Your task to perform on an android device: check android version Image 0: 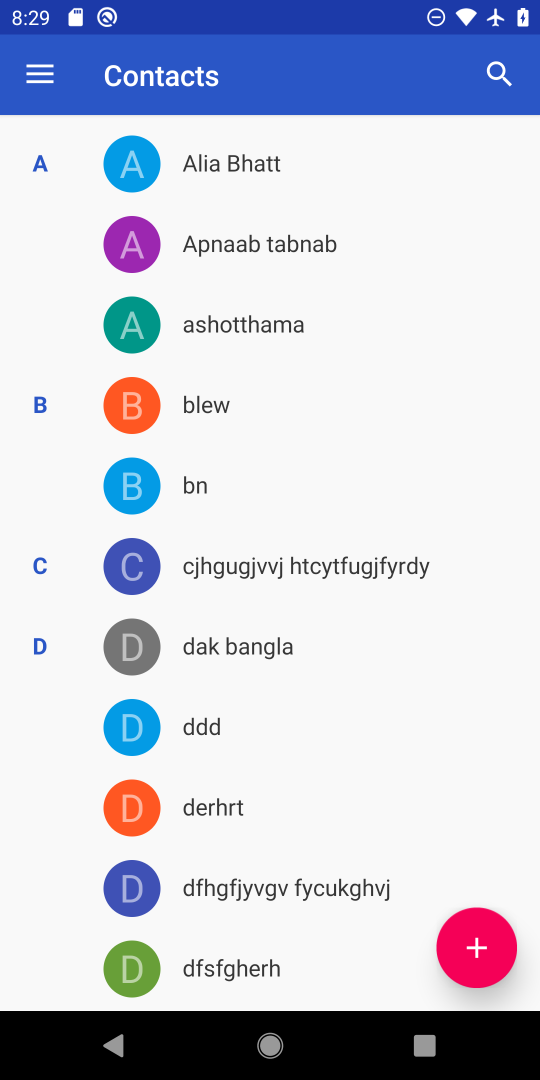
Step 0: press home button
Your task to perform on an android device: check android version Image 1: 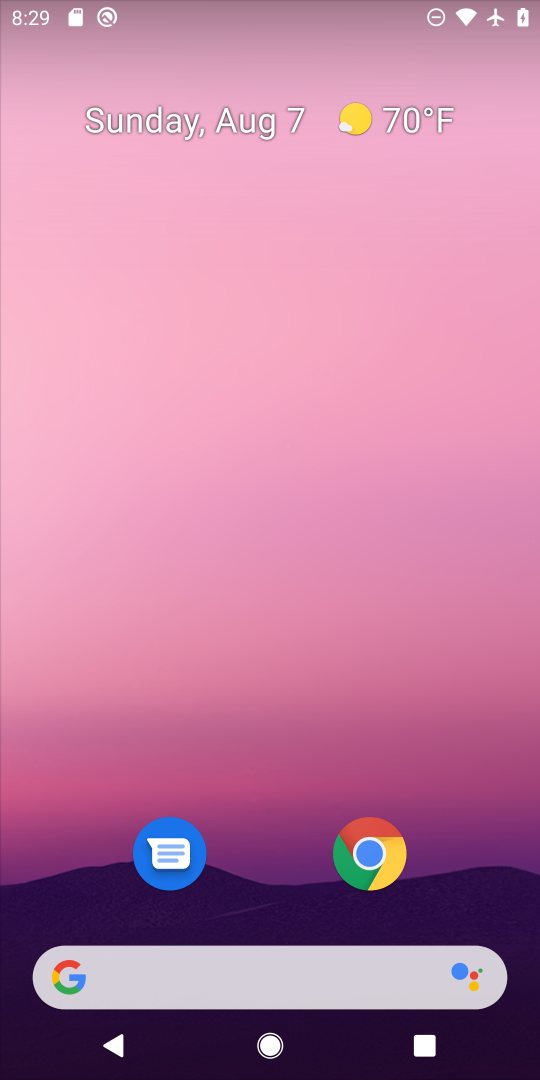
Step 1: drag from (313, 983) to (380, 146)
Your task to perform on an android device: check android version Image 2: 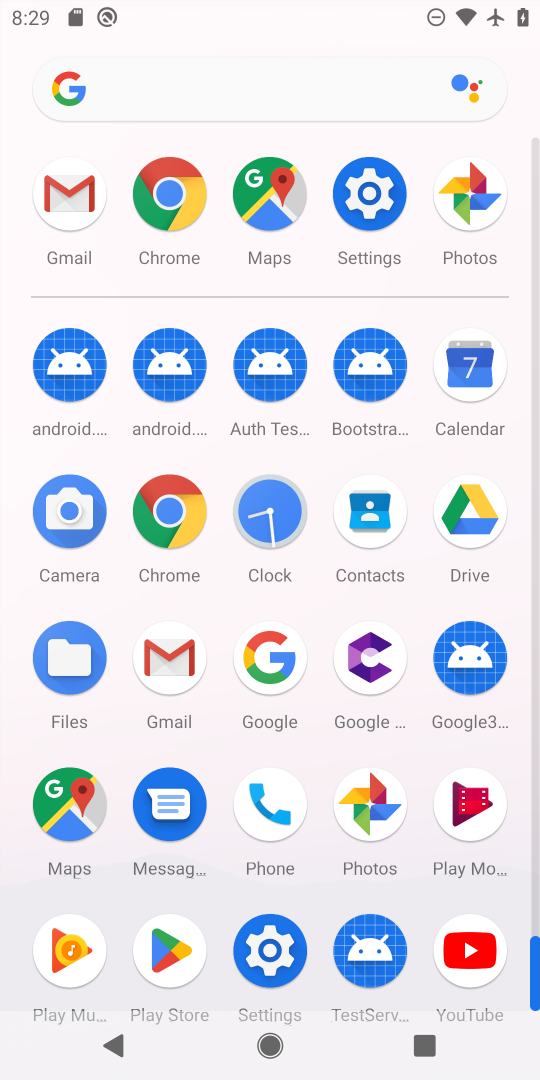
Step 2: click (386, 243)
Your task to perform on an android device: check android version Image 3: 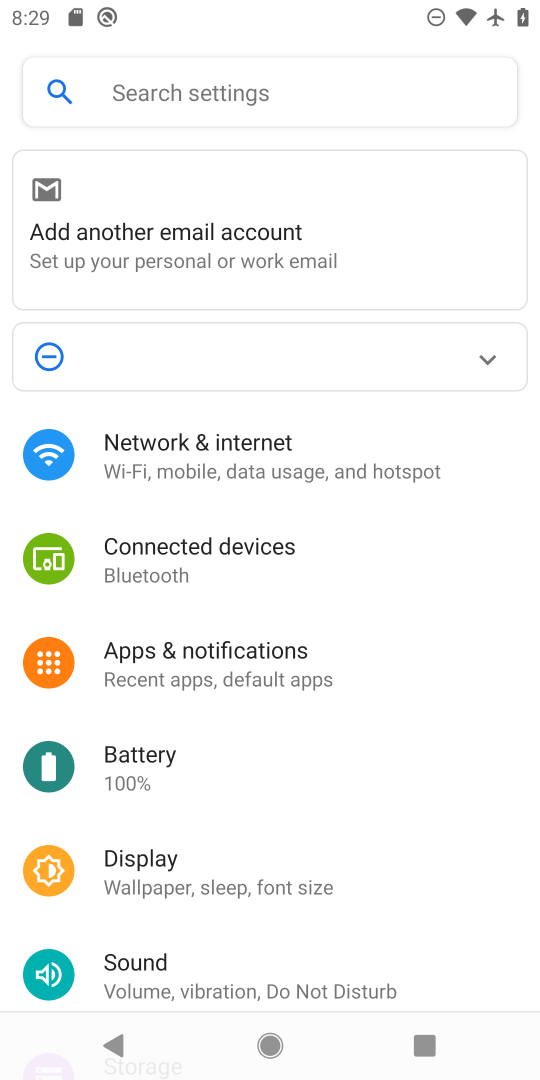
Step 3: drag from (240, 841) to (281, 150)
Your task to perform on an android device: check android version Image 4: 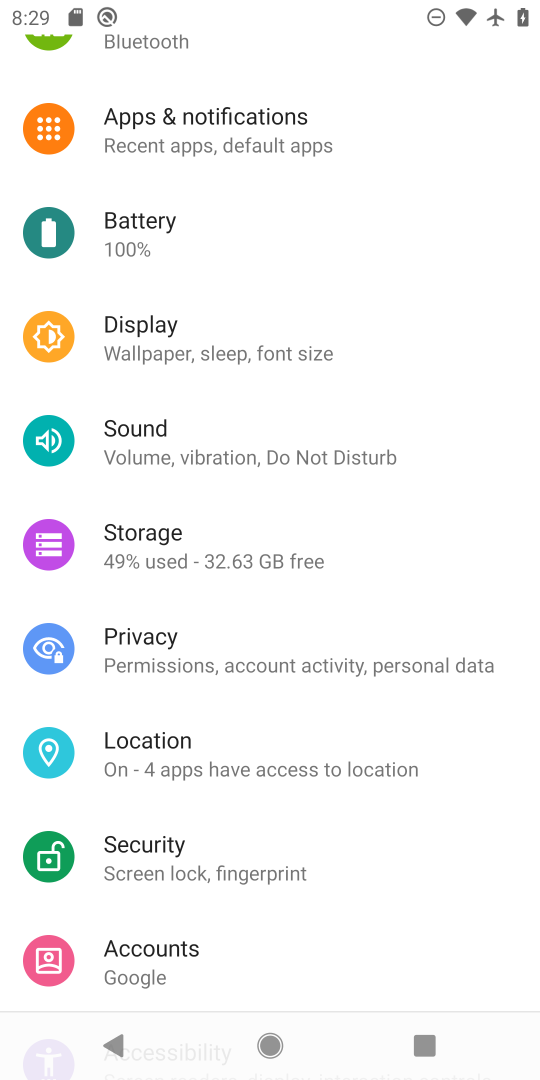
Step 4: drag from (274, 835) to (312, 87)
Your task to perform on an android device: check android version Image 5: 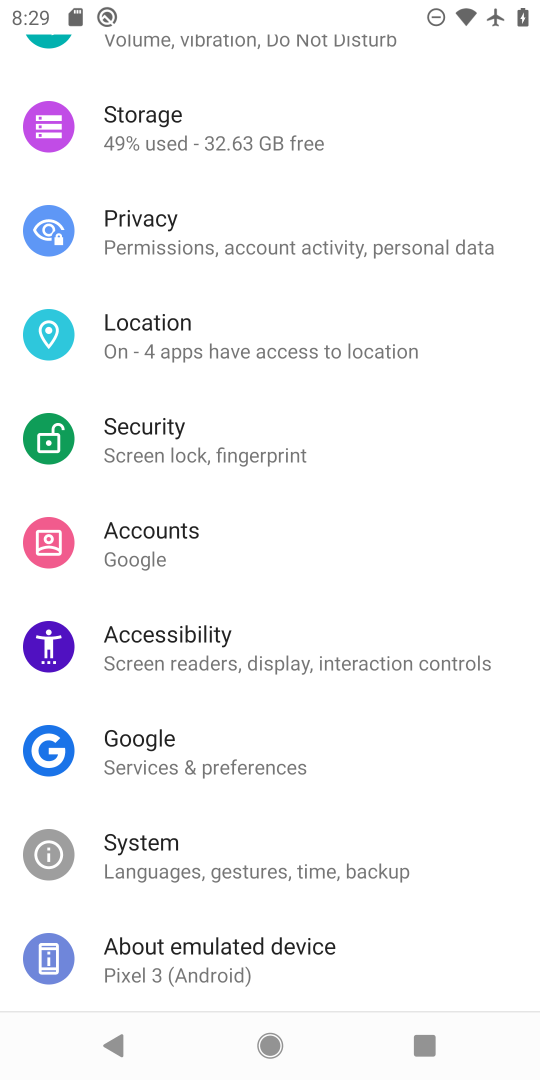
Step 5: click (272, 981)
Your task to perform on an android device: check android version Image 6: 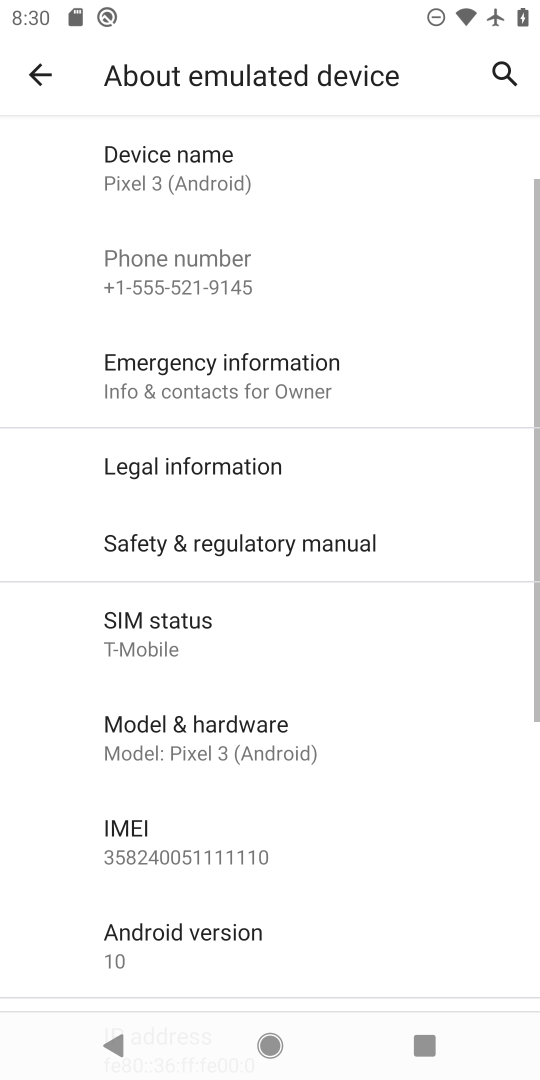
Step 6: click (210, 953)
Your task to perform on an android device: check android version Image 7: 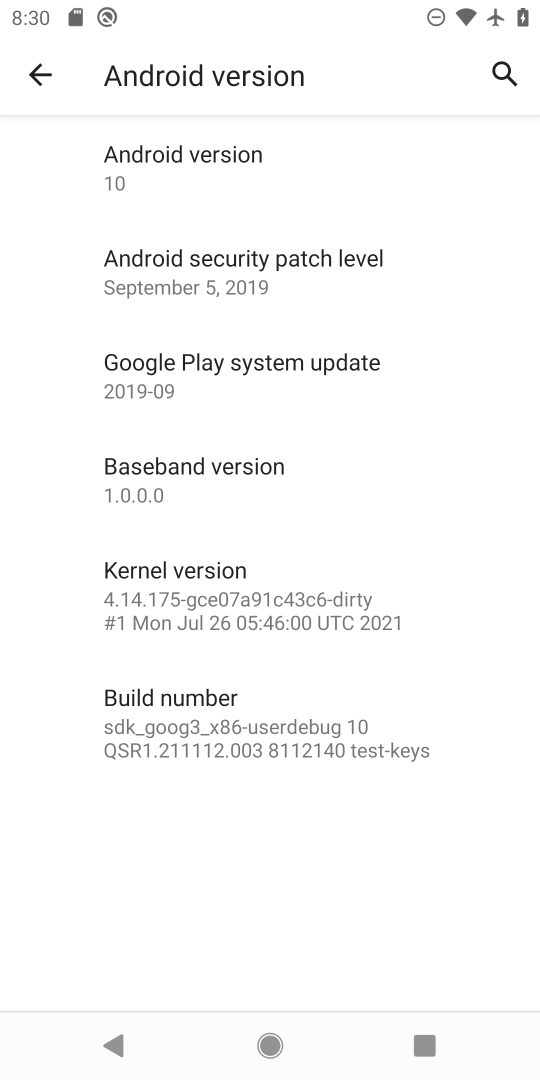
Step 7: click (238, 186)
Your task to perform on an android device: check android version Image 8: 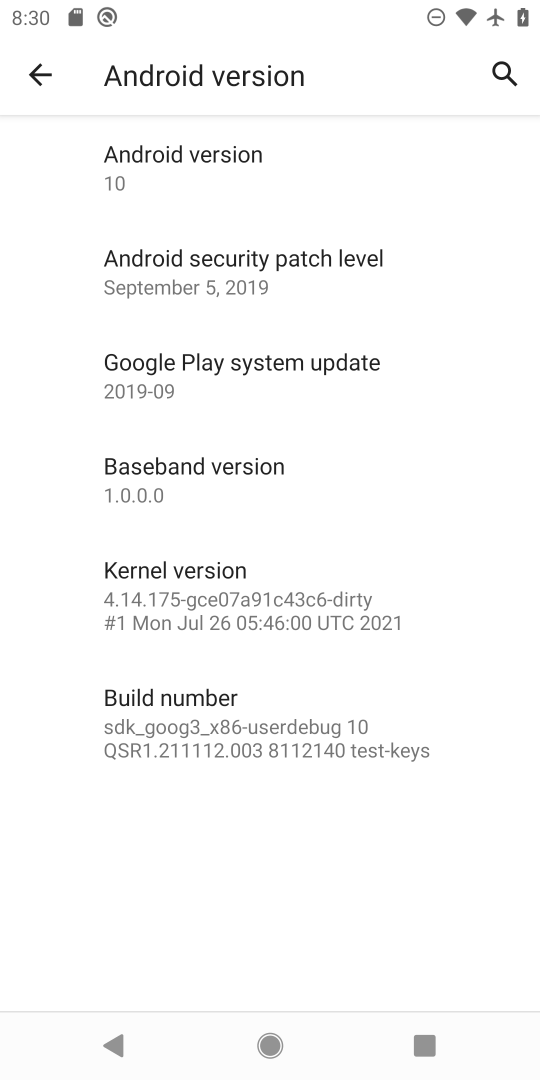
Step 8: task complete